Your task to perform on an android device: change the clock style Image 0: 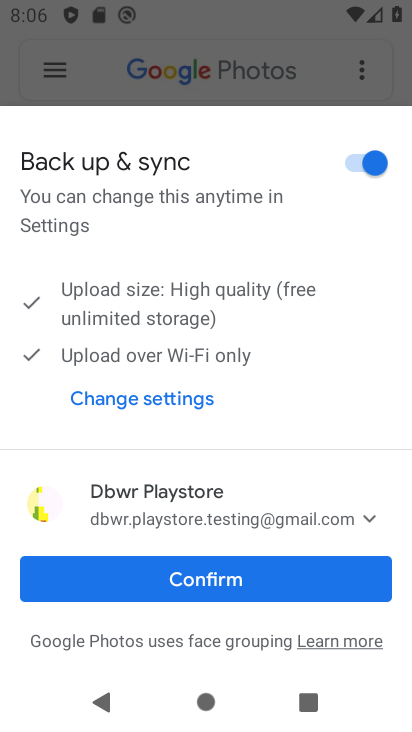
Step 0: click (253, 576)
Your task to perform on an android device: change the clock style Image 1: 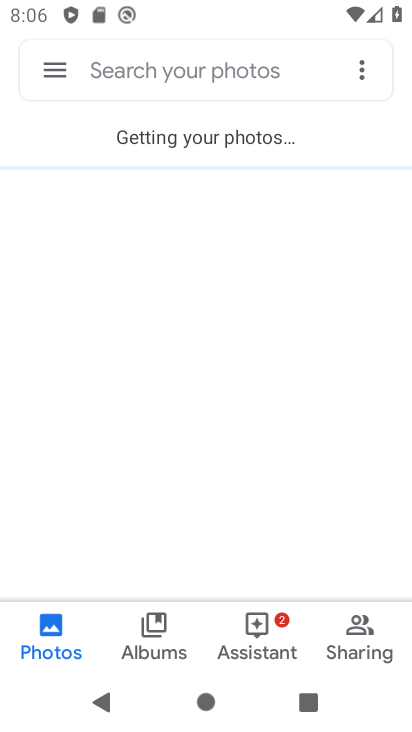
Step 1: press home button
Your task to perform on an android device: change the clock style Image 2: 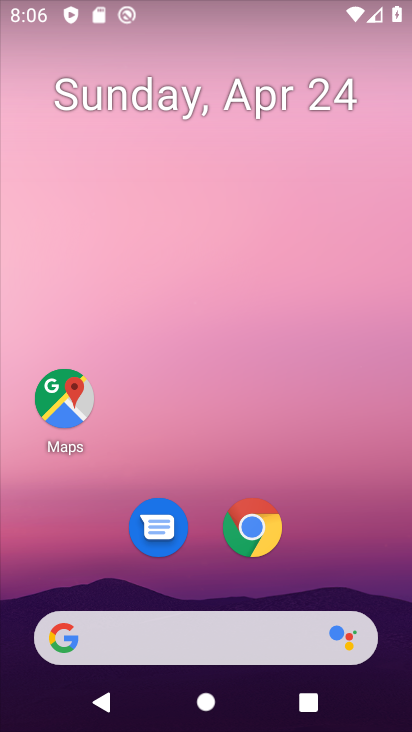
Step 2: drag from (352, 433) to (286, 62)
Your task to perform on an android device: change the clock style Image 3: 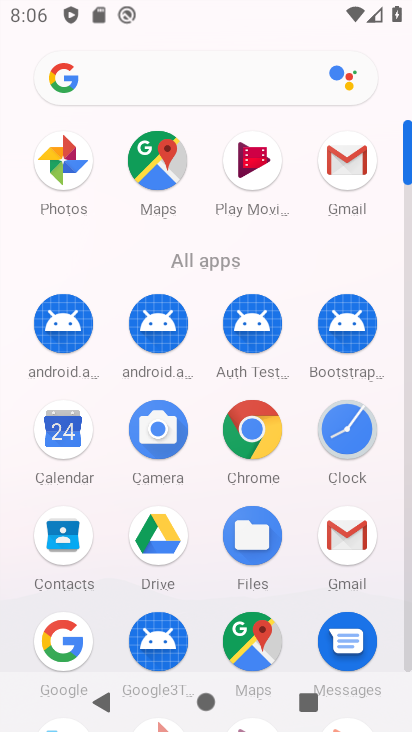
Step 3: click (340, 432)
Your task to perform on an android device: change the clock style Image 4: 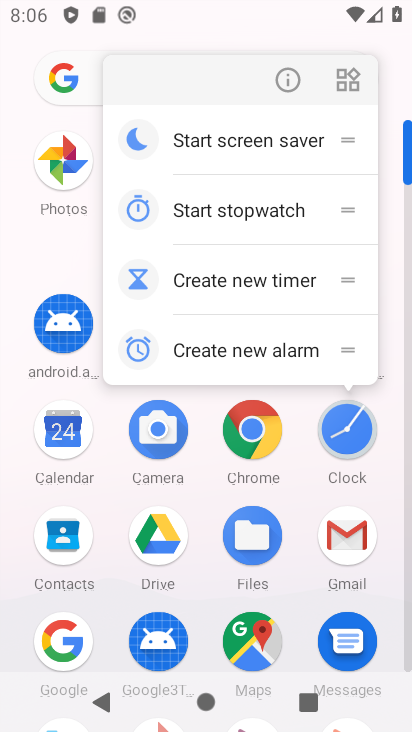
Step 4: click (340, 432)
Your task to perform on an android device: change the clock style Image 5: 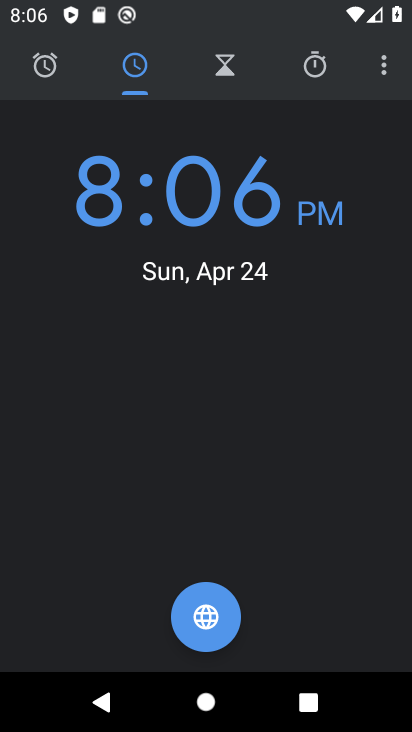
Step 5: click (384, 68)
Your task to perform on an android device: change the clock style Image 6: 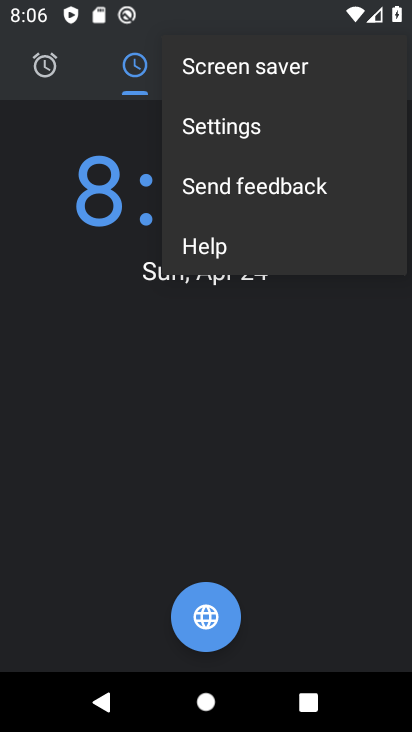
Step 6: click (299, 139)
Your task to perform on an android device: change the clock style Image 7: 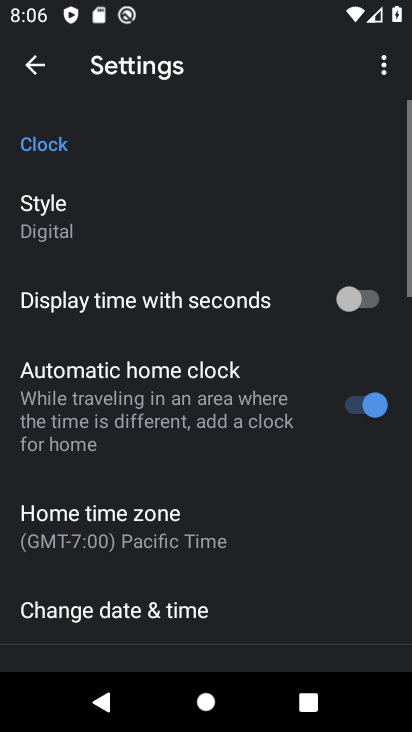
Step 7: click (30, 233)
Your task to perform on an android device: change the clock style Image 8: 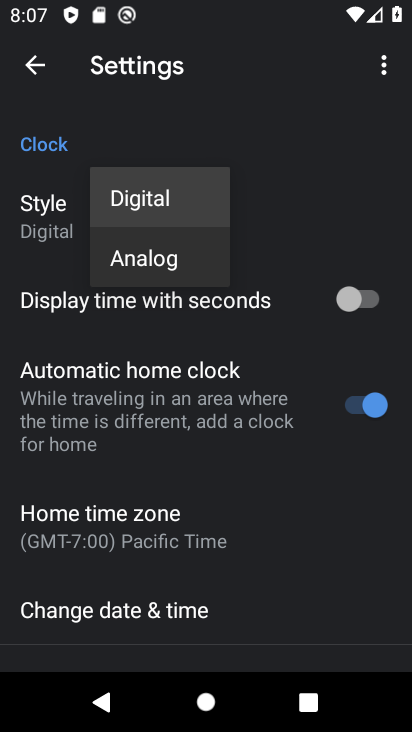
Step 8: click (156, 247)
Your task to perform on an android device: change the clock style Image 9: 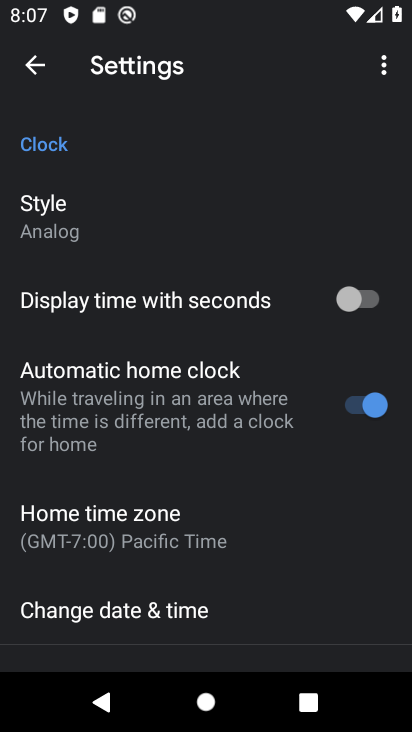
Step 9: task complete